Your task to perform on an android device: Open Amazon Image 0: 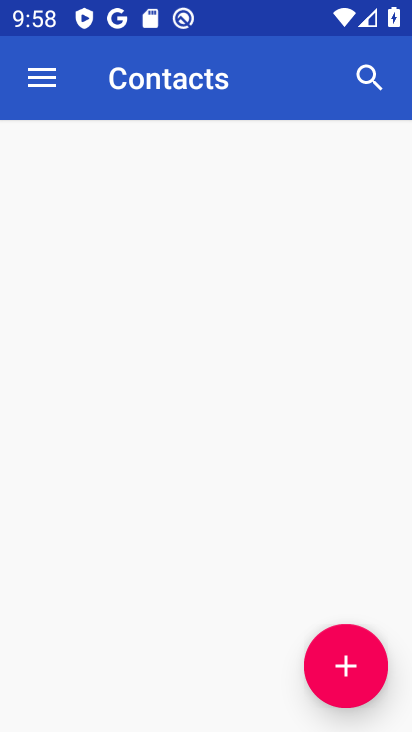
Step 0: drag from (399, 698) to (363, 2)
Your task to perform on an android device: Open Amazon Image 1: 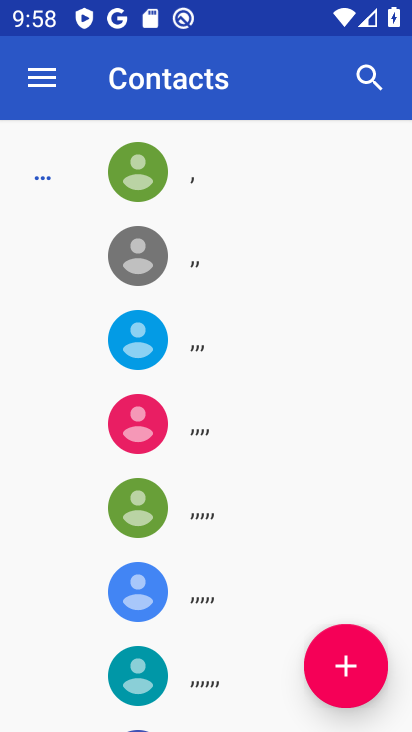
Step 1: press home button
Your task to perform on an android device: Open Amazon Image 2: 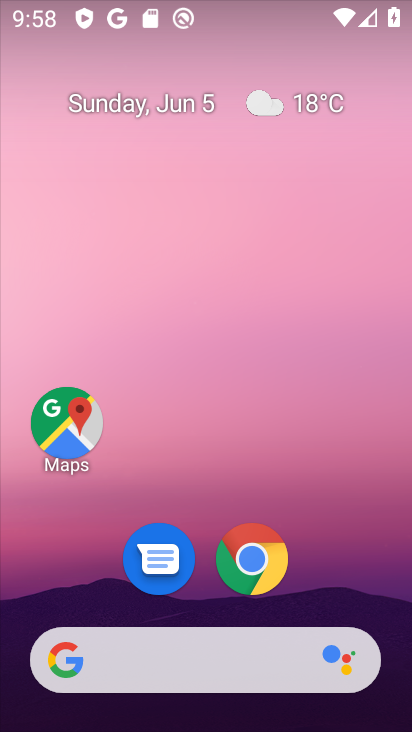
Step 2: drag from (393, 709) to (366, 51)
Your task to perform on an android device: Open Amazon Image 3: 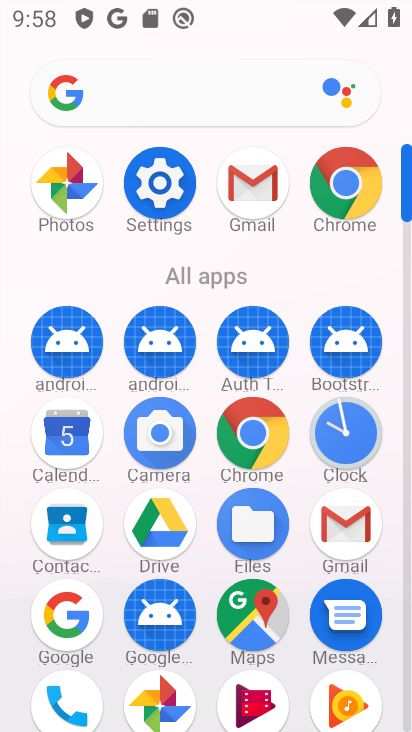
Step 3: click (349, 181)
Your task to perform on an android device: Open Amazon Image 4: 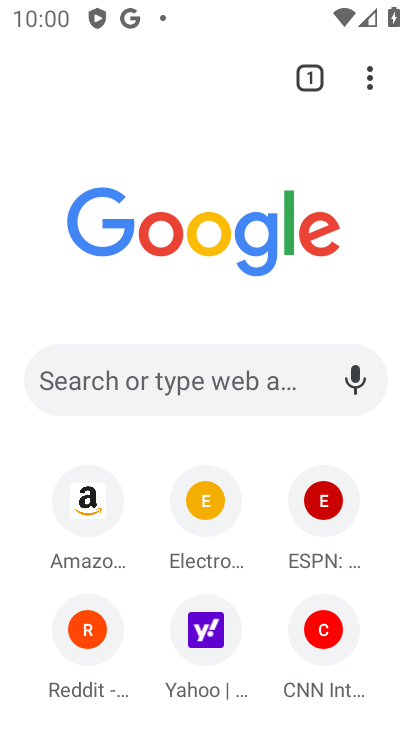
Step 4: click (249, 384)
Your task to perform on an android device: Open Amazon Image 5: 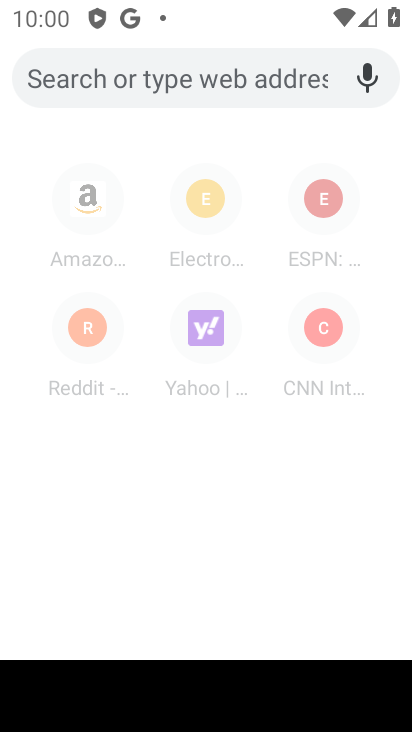
Step 5: type "Amazon"
Your task to perform on an android device: Open Amazon Image 6: 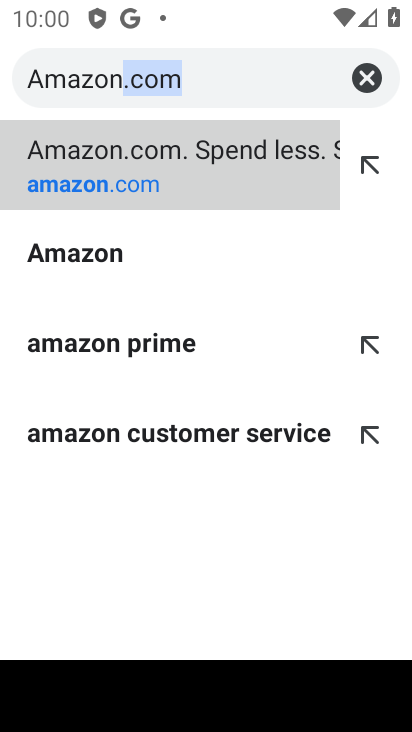
Step 6: click (76, 238)
Your task to perform on an android device: Open Amazon Image 7: 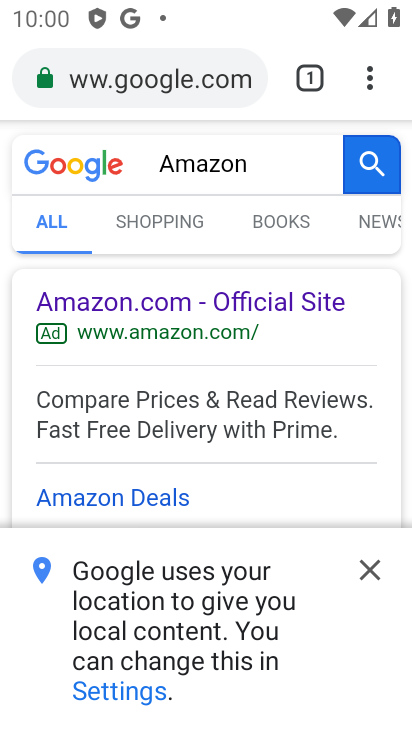
Step 7: task complete